Your task to perform on an android device: Open my contact list Image 0: 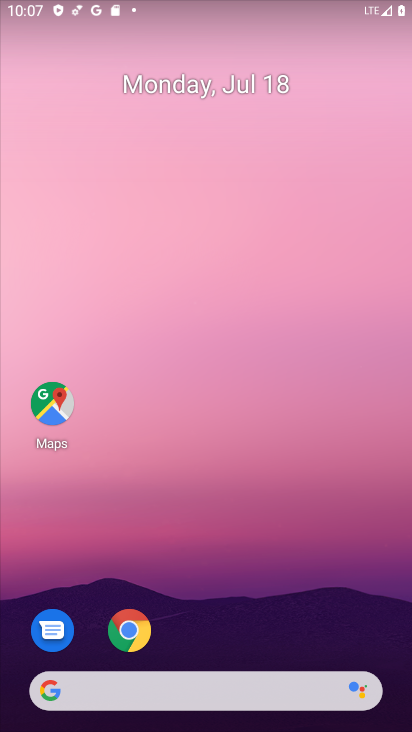
Step 0: drag from (302, 625) to (248, 117)
Your task to perform on an android device: Open my contact list Image 1: 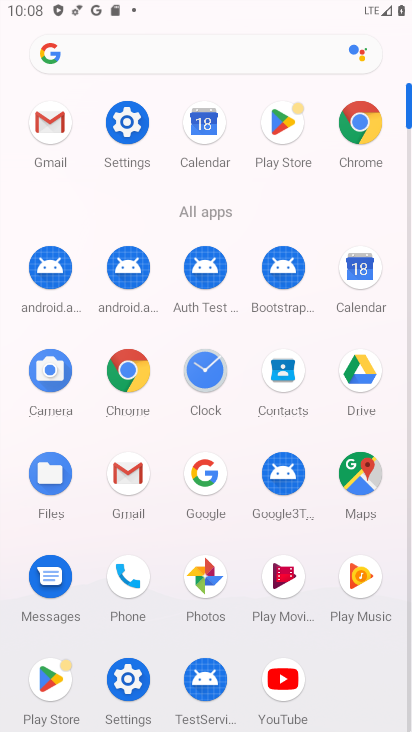
Step 1: click (286, 389)
Your task to perform on an android device: Open my contact list Image 2: 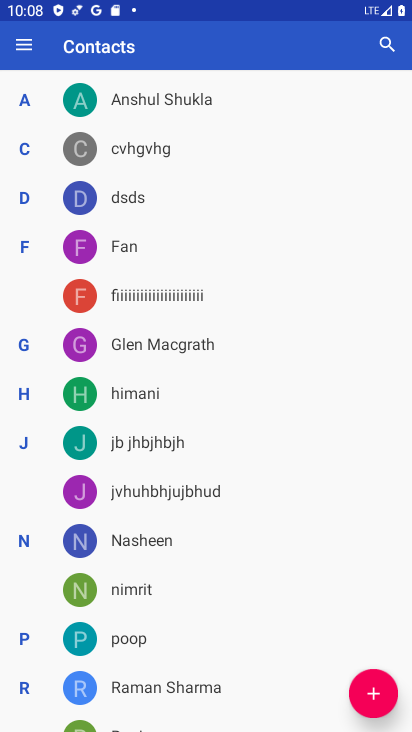
Step 2: task complete